Your task to perform on an android device: Go to Google Image 0: 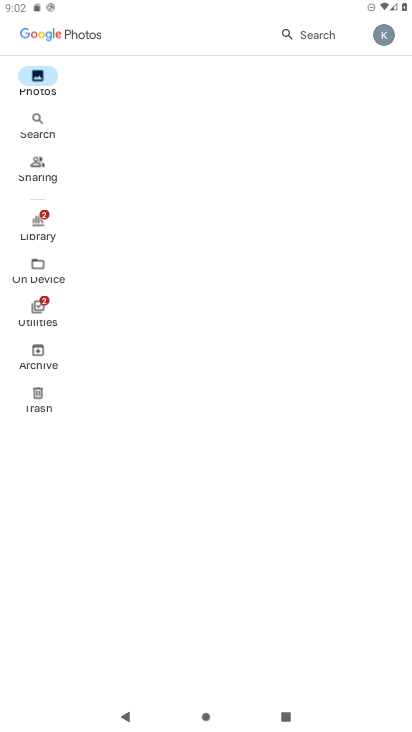
Step 0: click (369, 635)
Your task to perform on an android device: Go to Google Image 1: 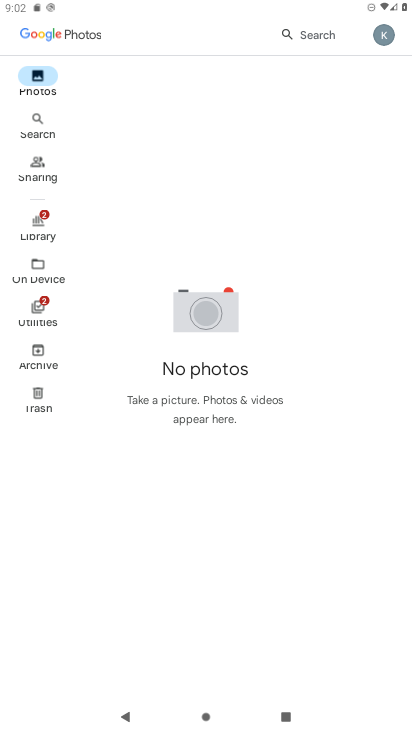
Step 1: press home button
Your task to perform on an android device: Go to Google Image 2: 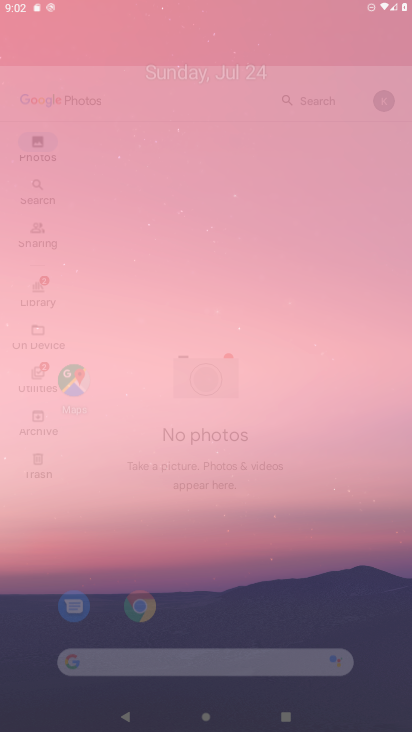
Step 2: drag from (359, 666) to (205, 162)
Your task to perform on an android device: Go to Google Image 3: 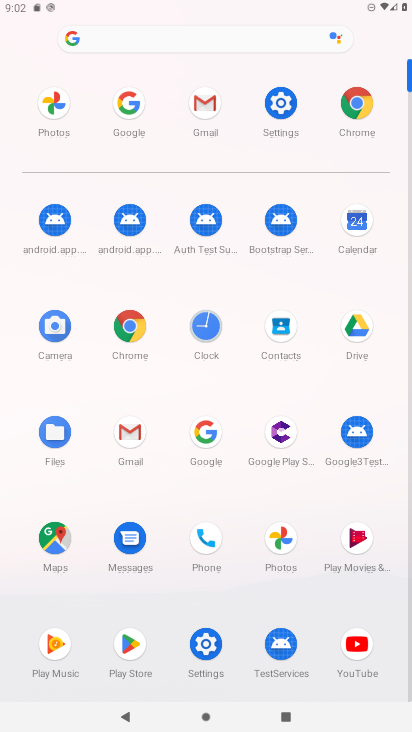
Step 3: click (197, 425)
Your task to perform on an android device: Go to Google Image 4: 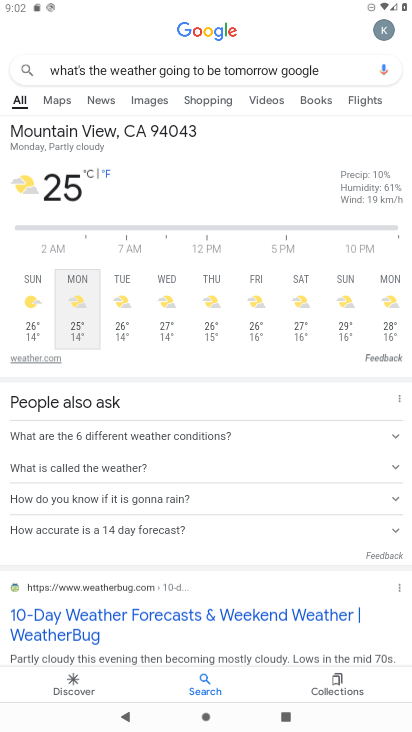
Step 4: task complete